Your task to perform on an android device: refresh tabs in the chrome app Image 0: 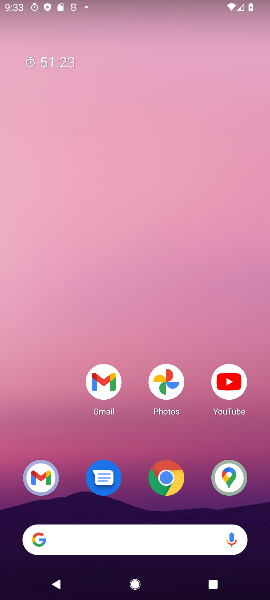
Step 0: press home button
Your task to perform on an android device: refresh tabs in the chrome app Image 1: 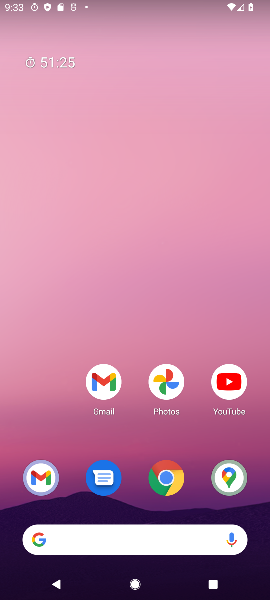
Step 1: click (151, 468)
Your task to perform on an android device: refresh tabs in the chrome app Image 2: 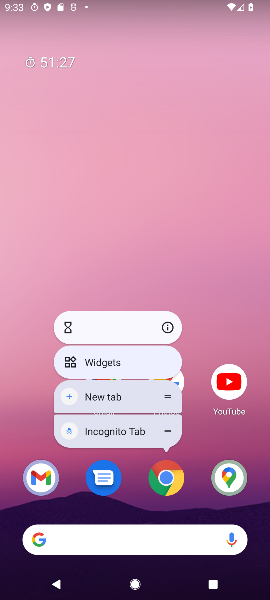
Step 2: click (164, 478)
Your task to perform on an android device: refresh tabs in the chrome app Image 3: 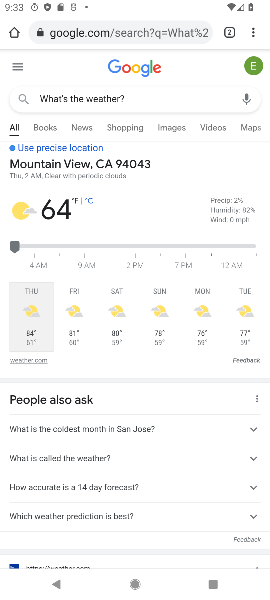
Step 3: click (256, 32)
Your task to perform on an android device: refresh tabs in the chrome app Image 4: 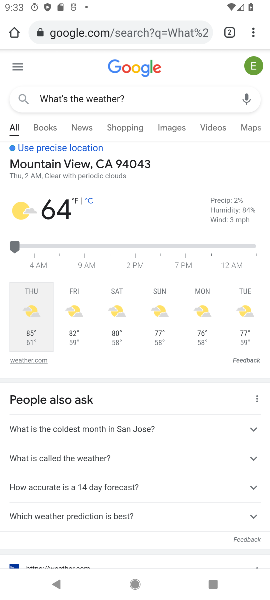
Step 4: task complete